Your task to perform on an android device: Open Google Maps Image 0: 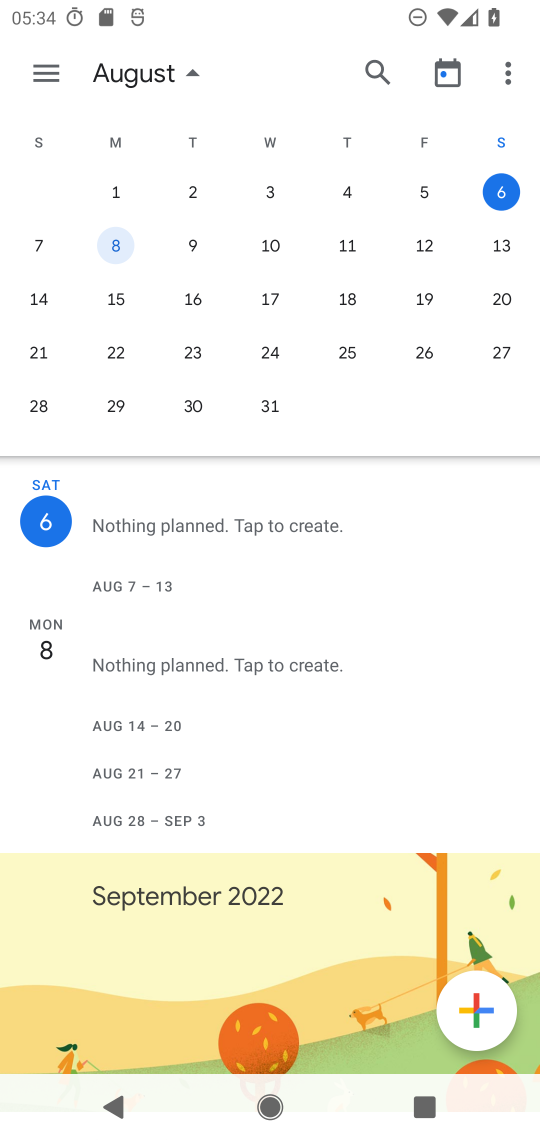
Step 0: press home button
Your task to perform on an android device: Open Google Maps Image 1: 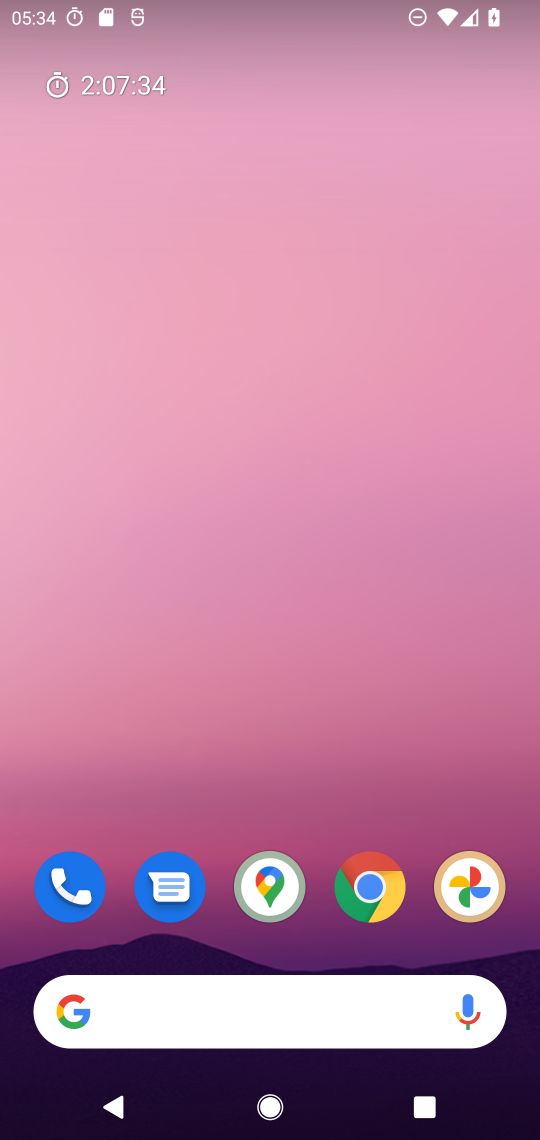
Step 1: drag from (429, 722) to (438, 171)
Your task to perform on an android device: Open Google Maps Image 2: 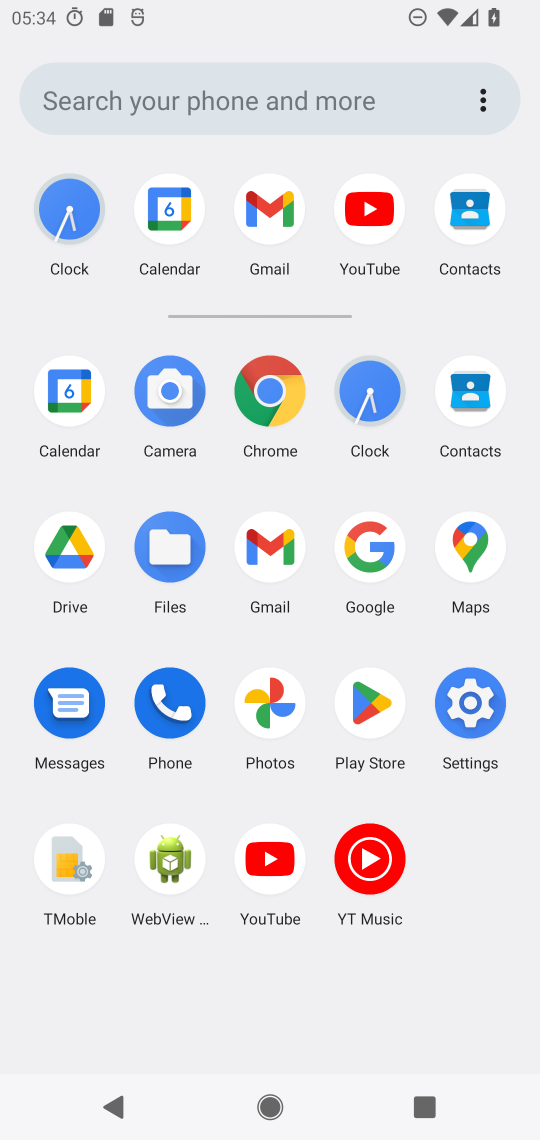
Step 2: click (467, 542)
Your task to perform on an android device: Open Google Maps Image 3: 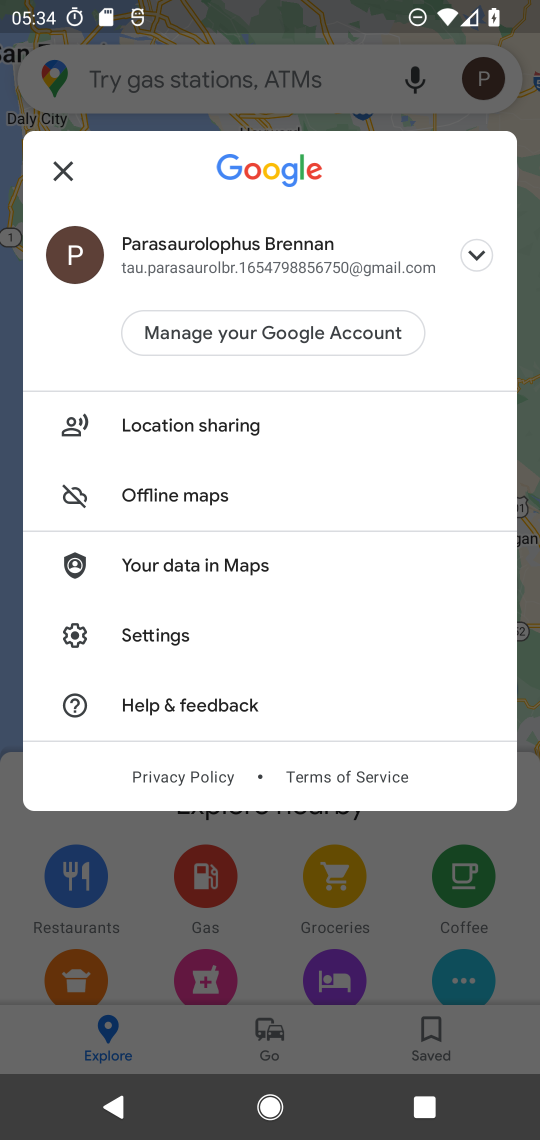
Step 3: task complete